Your task to perform on an android device: turn on data saver in the chrome app Image 0: 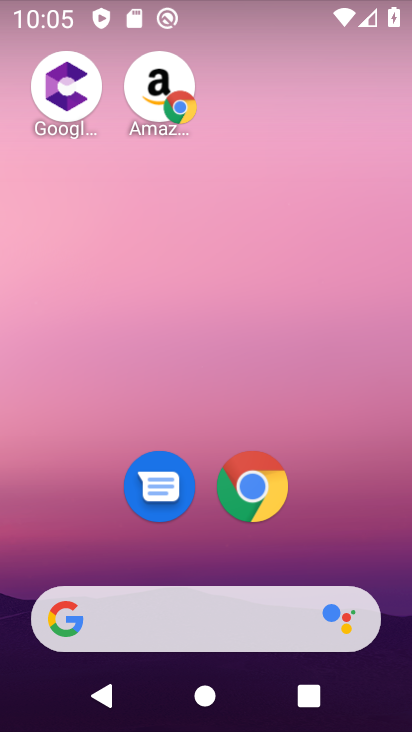
Step 0: click (254, 488)
Your task to perform on an android device: turn on data saver in the chrome app Image 1: 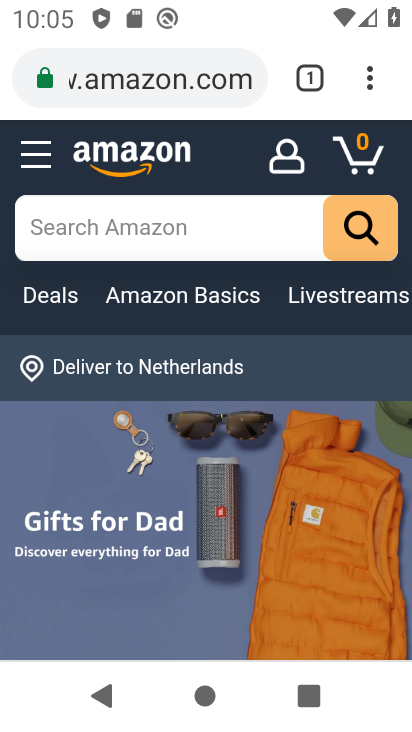
Step 1: click (368, 79)
Your task to perform on an android device: turn on data saver in the chrome app Image 2: 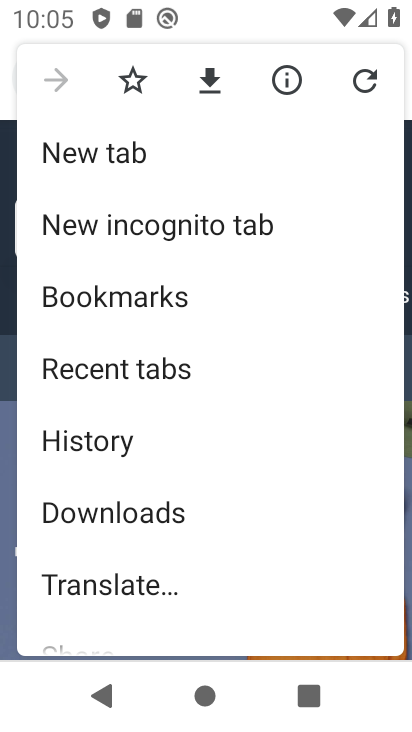
Step 2: drag from (158, 421) to (151, 339)
Your task to perform on an android device: turn on data saver in the chrome app Image 3: 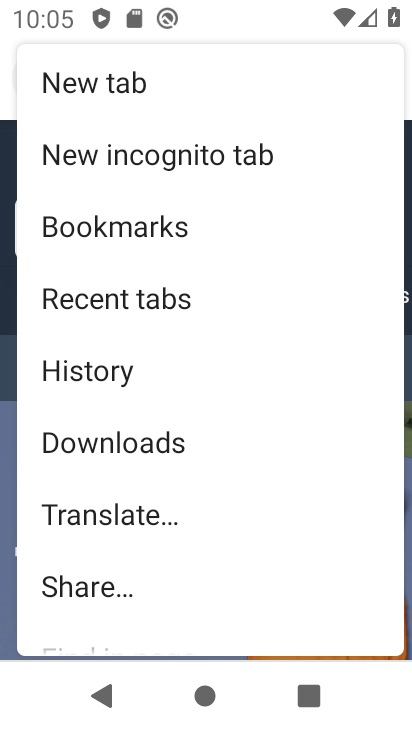
Step 3: drag from (145, 485) to (189, 404)
Your task to perform on an android device: turn on data saver in the chrome app Image 4: 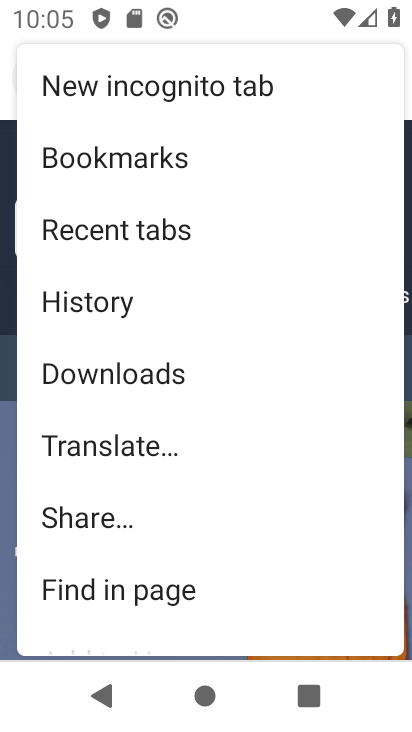
Step 4: drag from (175, 517) to (261, 398)
Your task to perform on an android device: turn on data saver in the chrome app Image 5: 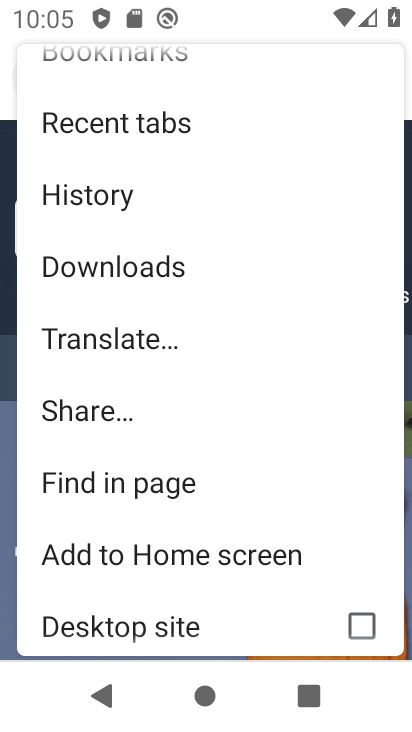
Step 5: drag from (188, 533) to (244, 452)
Your task to perform on an android device: turn on data saver in the chrome app Image 6: 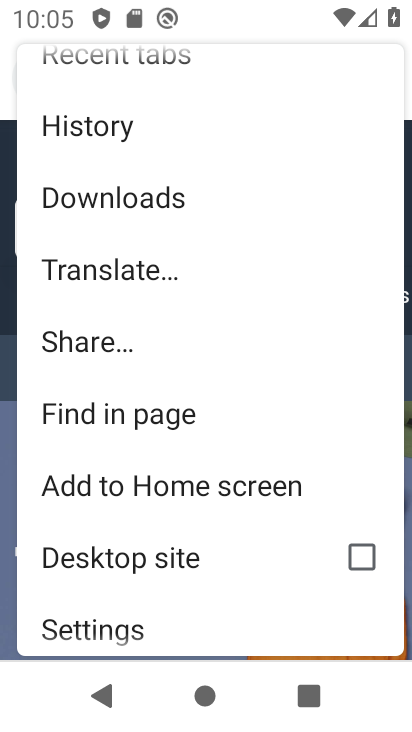
Step 6: drag from (161, 595) to (274, 465)
Your task to perform on an android device: turn on data saver in the chrome app Image 7: 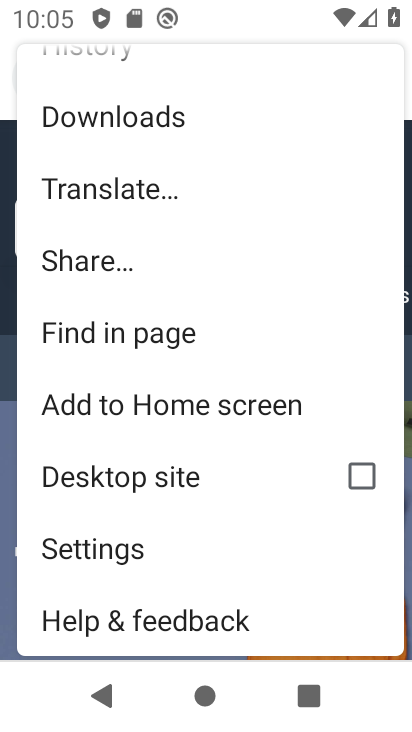
Step 7: click (104, 547)
Your task to perform on an android device: turn on data saver in the chrome app Image 8: 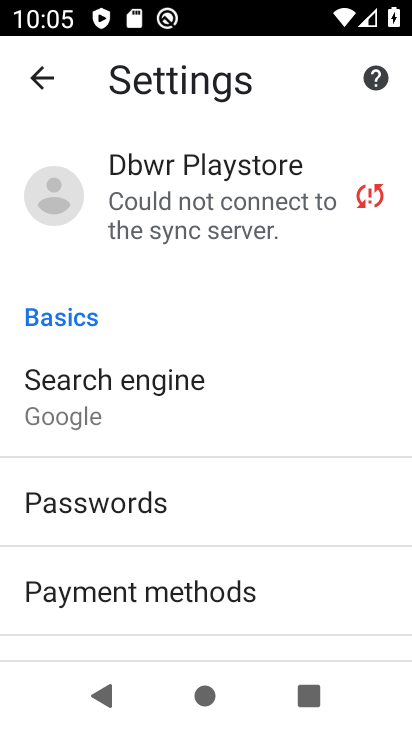
Step 8: drag from (201, 499) to (264, 400)
Your task to perform on an android device: turn on data saver in the chrome app Image 9: 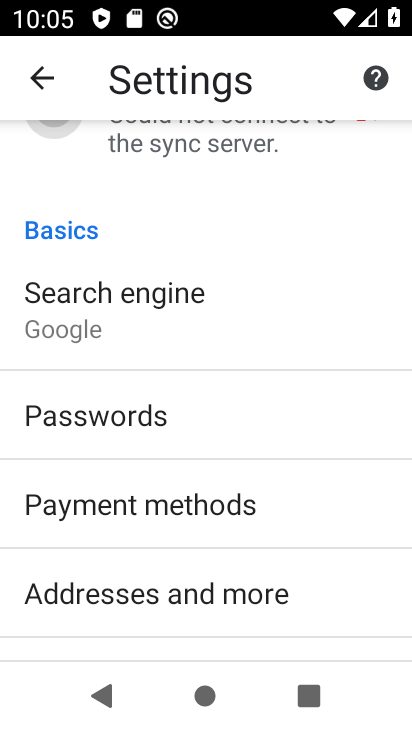
Step 9: drag from (165, 535) to (215, 453)
Your task to perform on an android device: turn on data saver in the chrome app Image 10: 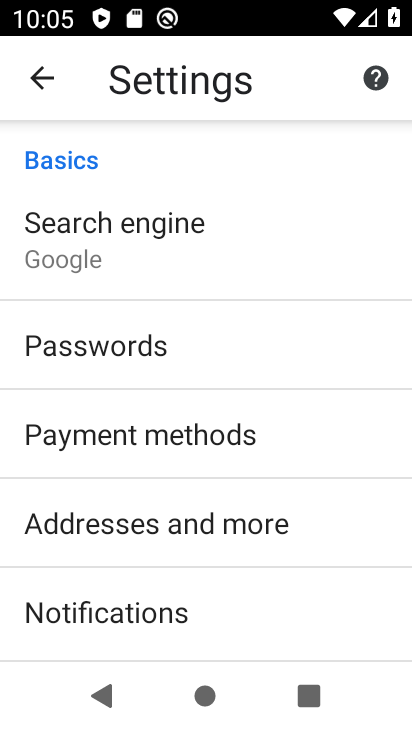
Step 10: drag from (142, 553) to (196, 457)
Your task to perform on an android device: turn on data saver in the chrome app Image 11: 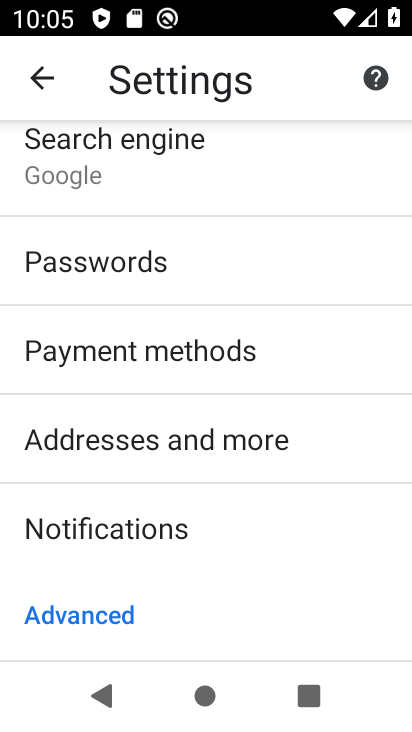
Step 11: drag from (135, 558) to (208, 404)
Your task to perform on an android device: turn on data saver in the chrome app Image 12: 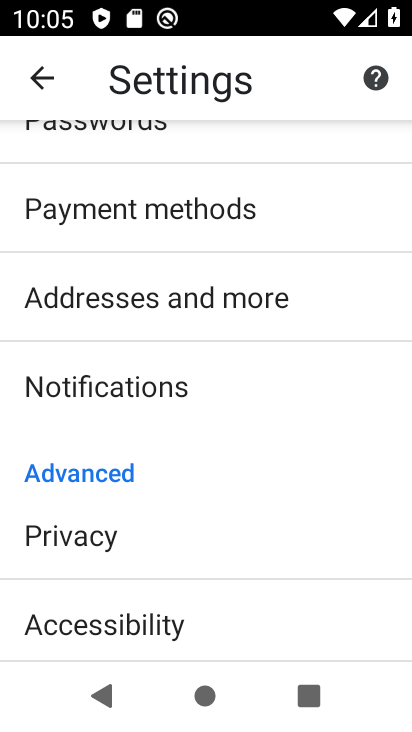
Step 12: drag from (100, 580) to (180, 487)
Your task to perform on an android device: turn on data saver in the chrome app Image 13: 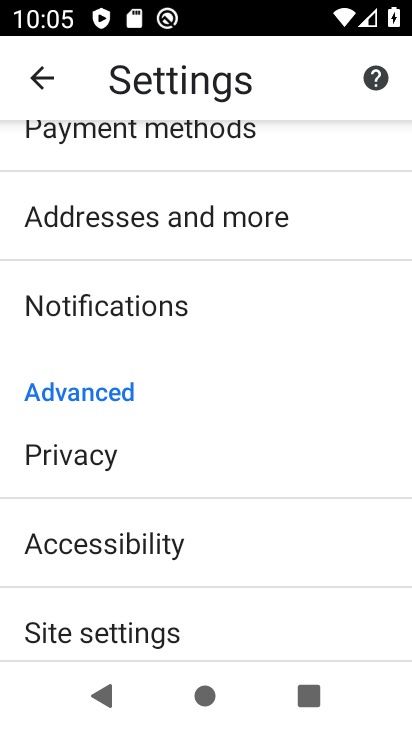
Step 13: drag from (96, 595) to (176, 476)
Your task to perform on an android device: turn on data saver in the chrome app Image 14: 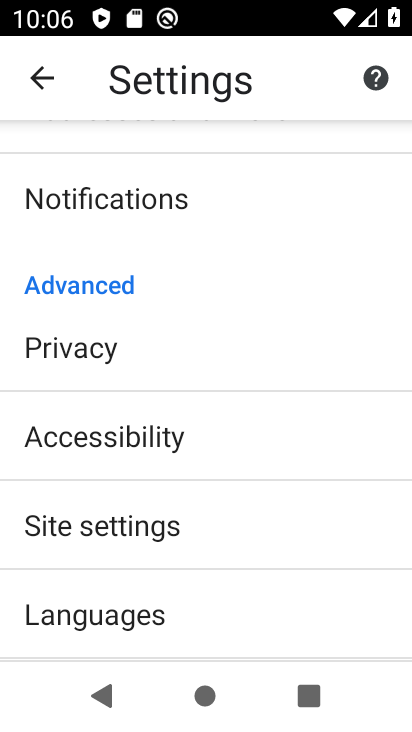
Step 14: drag from (156, 556) to (167, 476)
Your task to perform on an android device: turn on data saver in the chrome app Image 15: 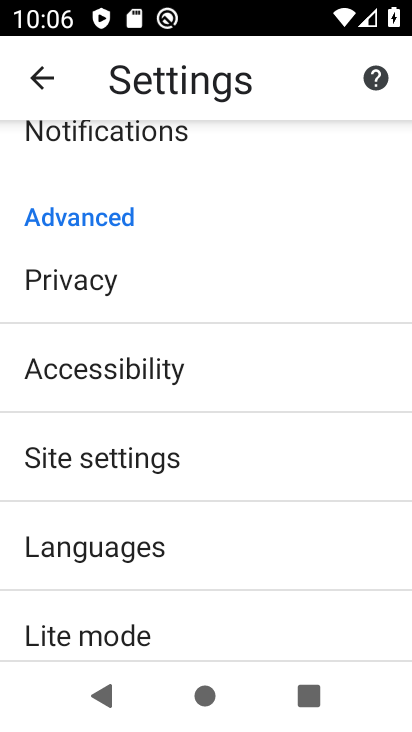
Step 15: drag from (142, 609) to (192, 487)
Your task to perform on an android device: turn on data saver in the chrome app Image 16: 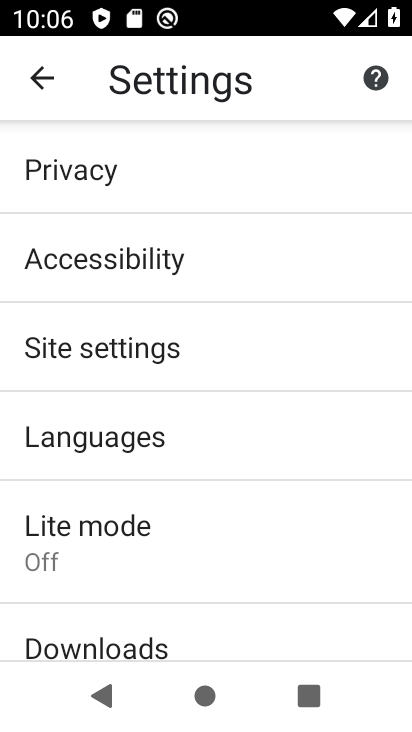
Step 16: click (141, 527)
Your task to perform on an android device: turn on data saver in the chrome app Image 17: 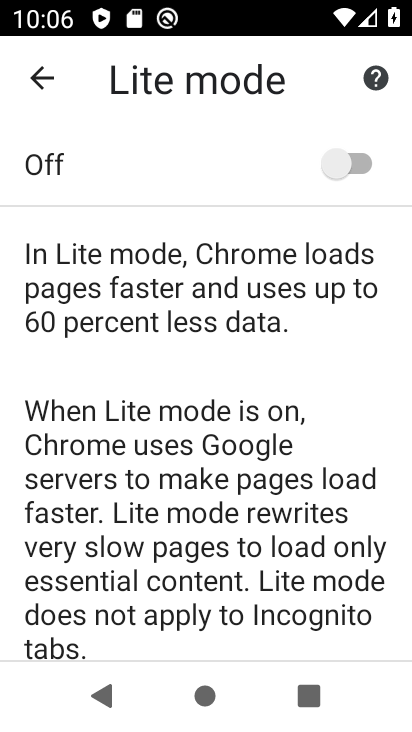
Step 17: click (336, 152)
Your task to perform on an android device: turn on data saver in the chrome app Image 18: 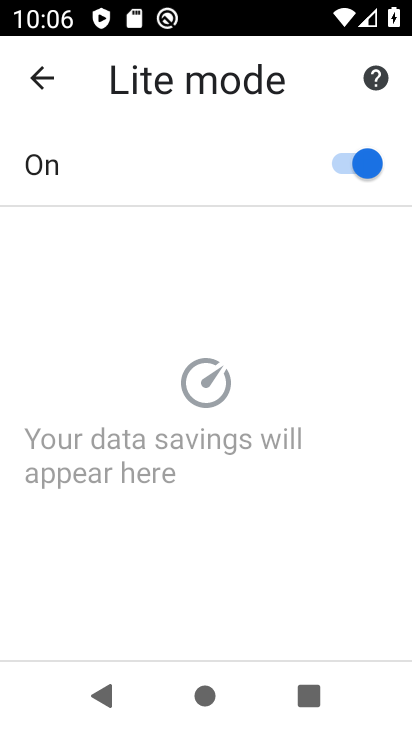
Step 18: task complete